Your task to perform on an android device: check data usage Image 0: 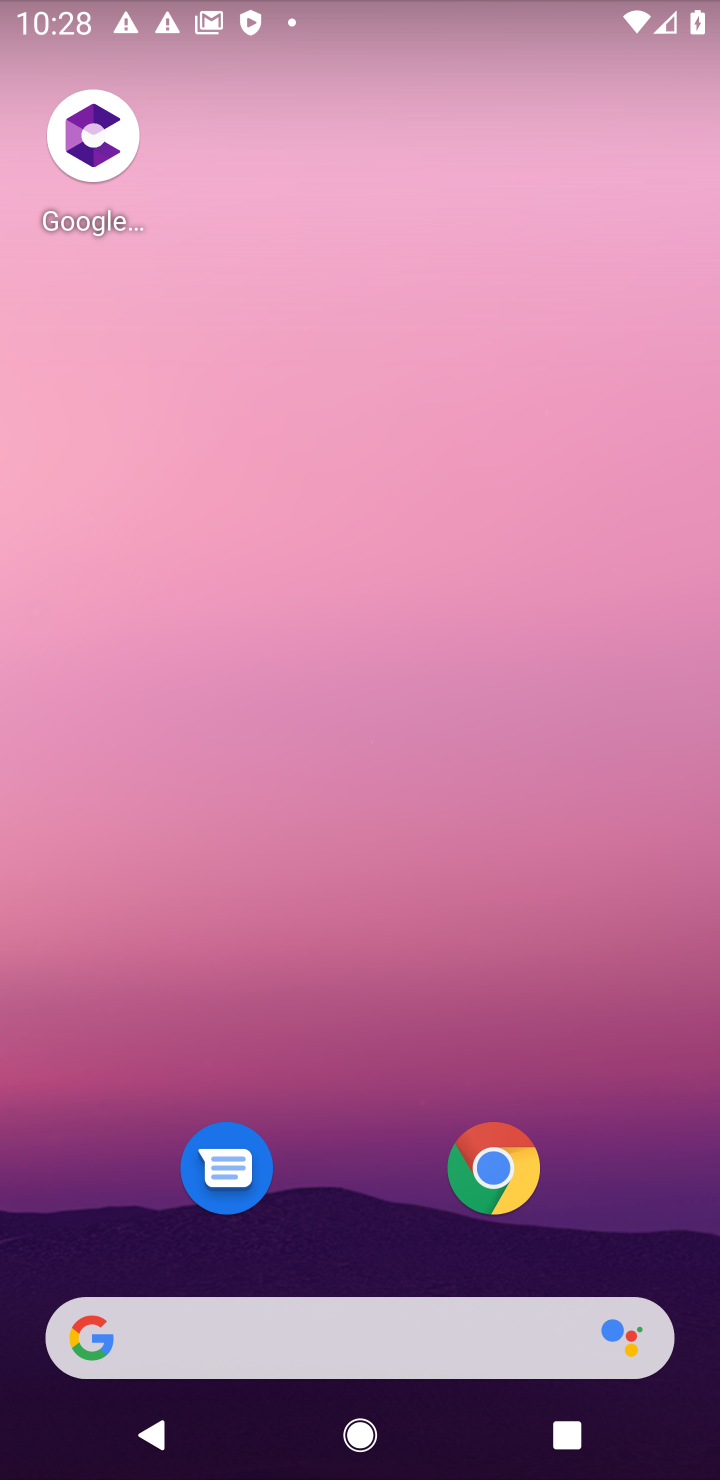
Step 0: drag from (412, 1046) to (590, 35)
Your task to perform on an android device: check data usage Image 1: 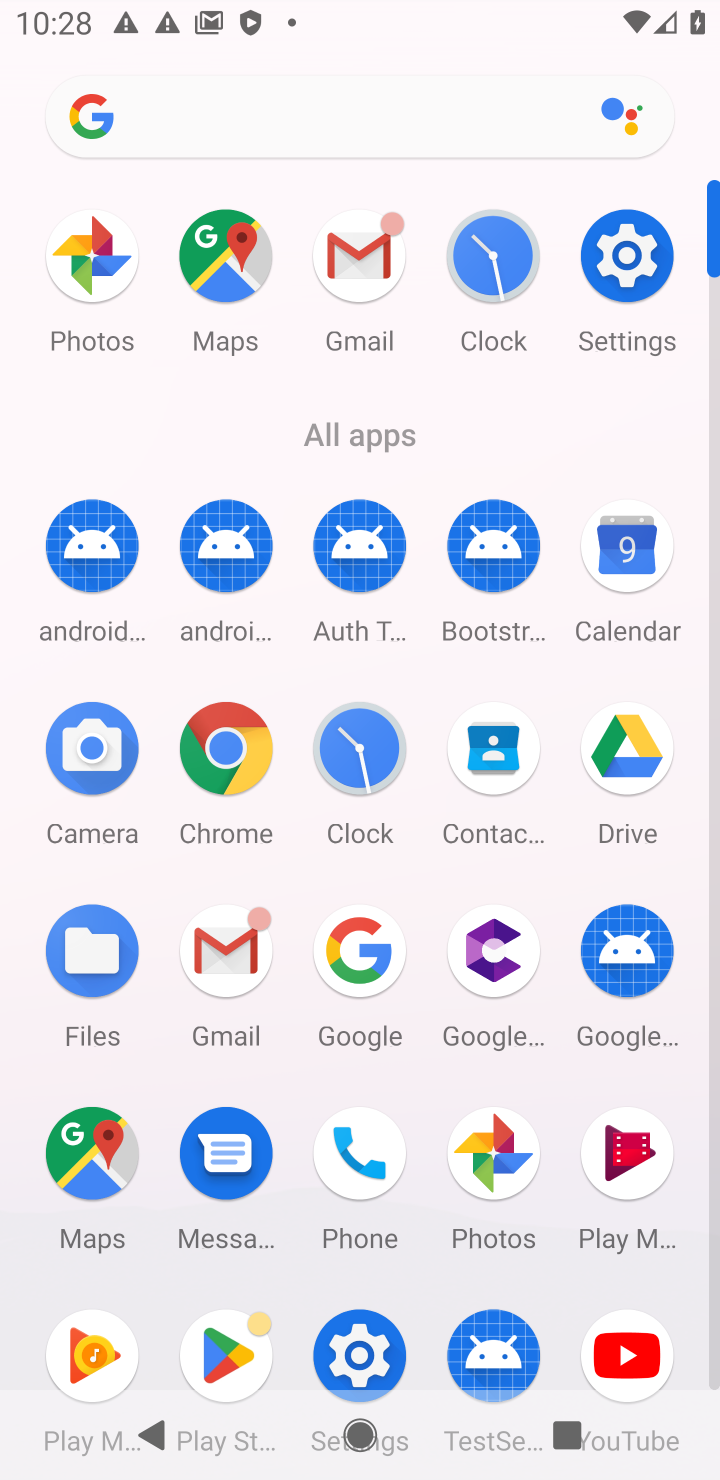
Step 1: drag from (344, 35) to (245, 1473)
Your task to perform on an android device: check data usage Image 2: 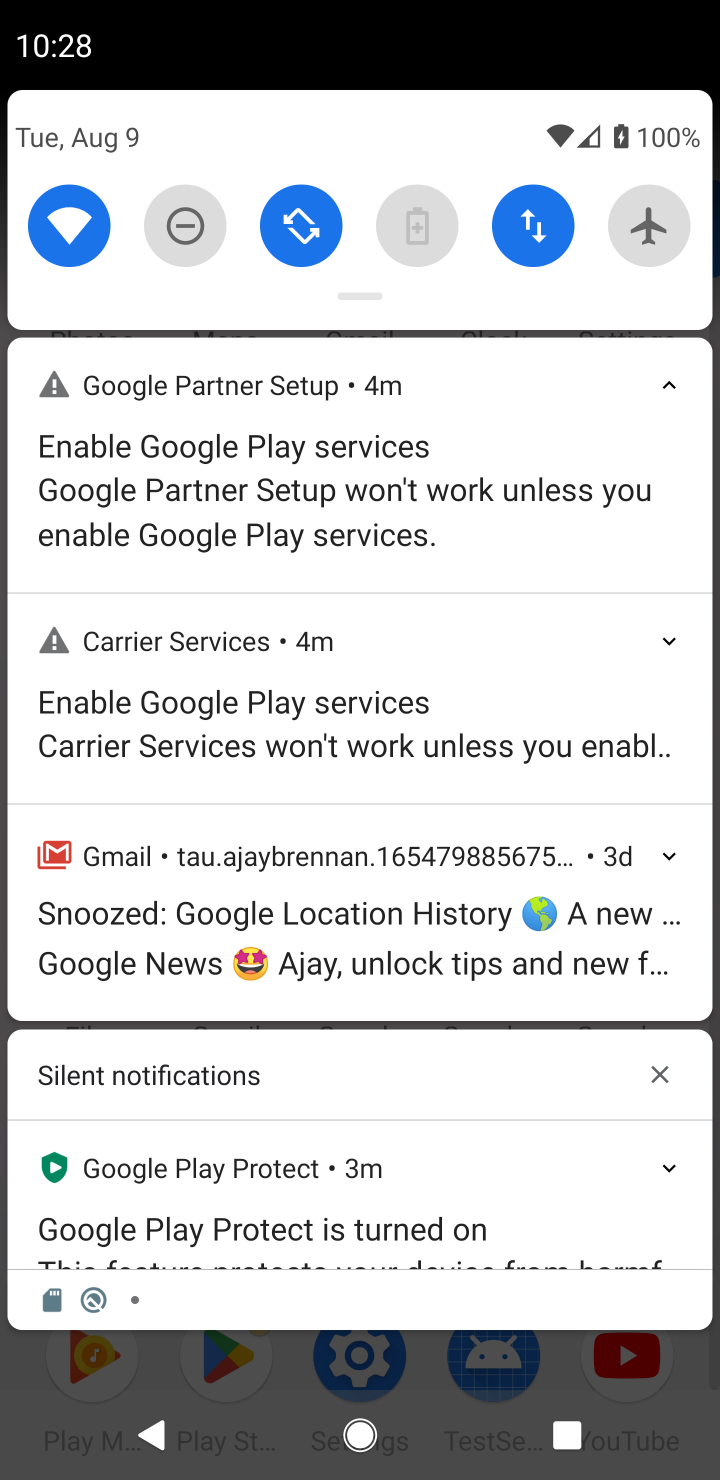
Step 2: click (520, 242)
Your task to perform on an android device: check data usage Image 3: 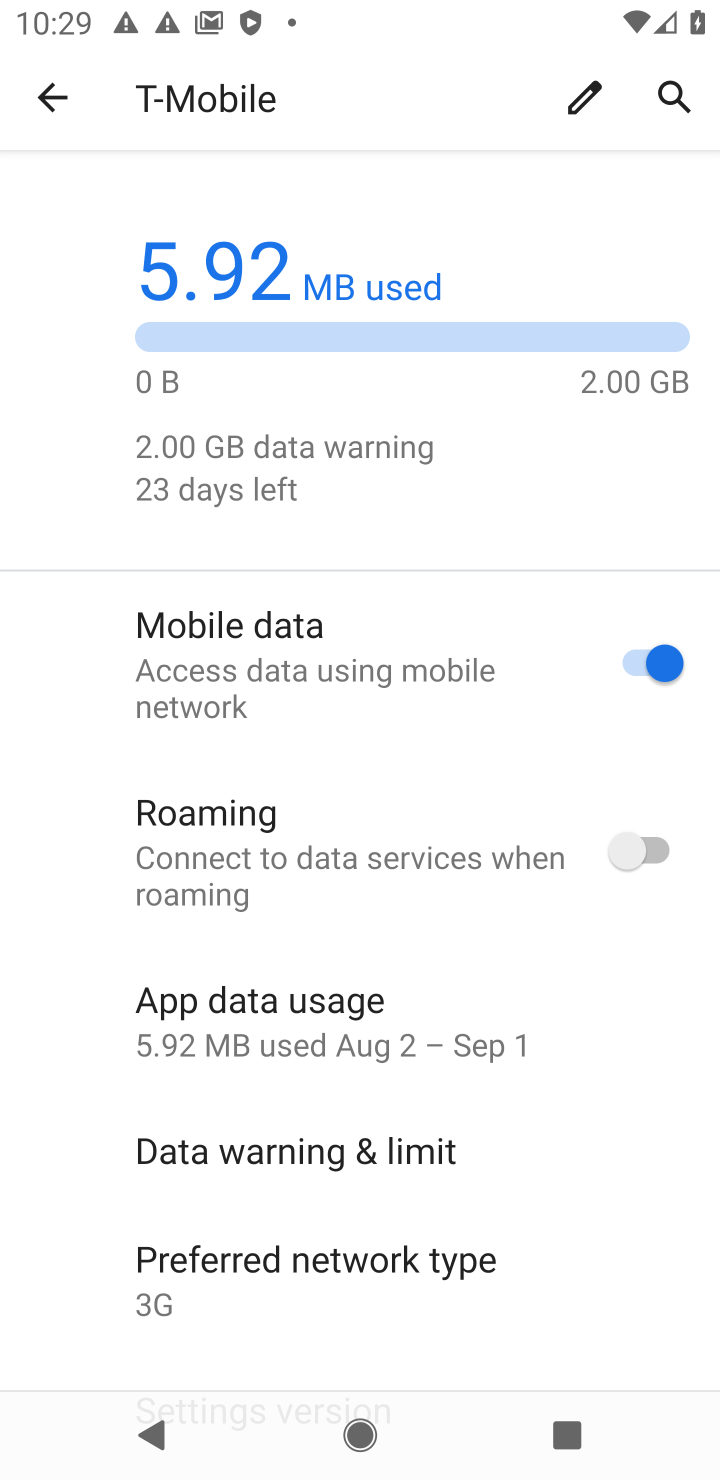
Step 3: task complete